Your task to perform on an android device: Search for the best gaming mouse on Best Buy. Image 0: 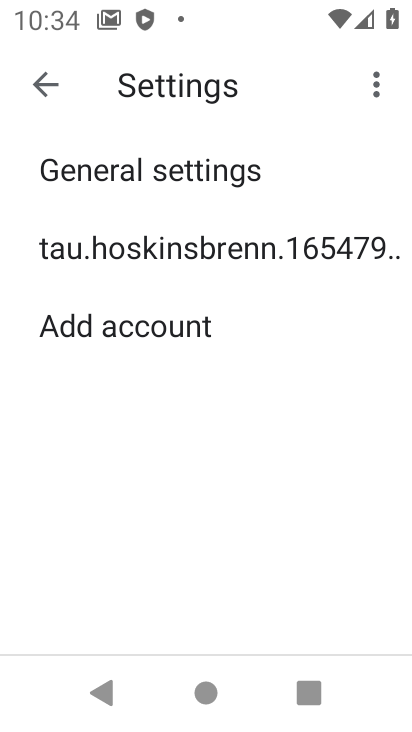
Step 0: press home button
Your task to perform on an android device: Search for the best gaming mouse on Best Buy. Image 1: 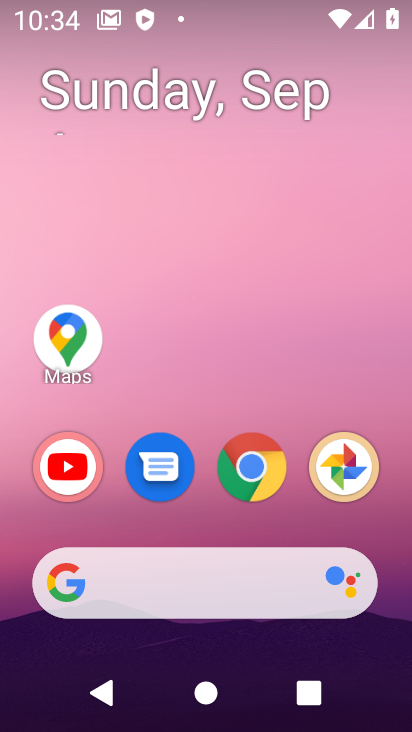
Step 1: click (241, 496)
Your task to perform on an android device: Search for the best gaming mouse on Best Buy. Image 2: 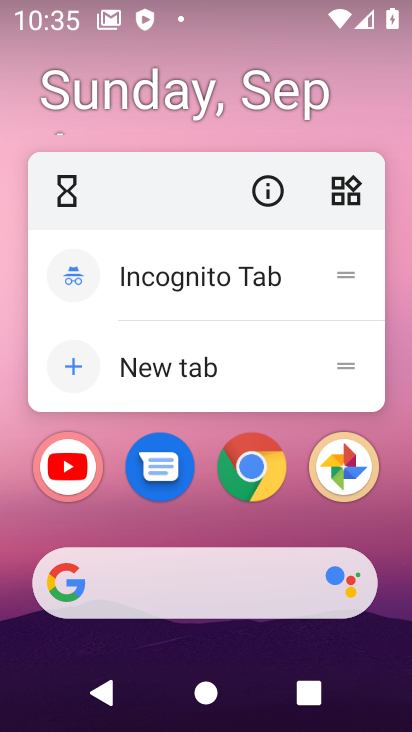
Step 2: click (257, 460)
Your task to perform on an android device: Search for the best gaming mouse on Best Buy. Image 3: 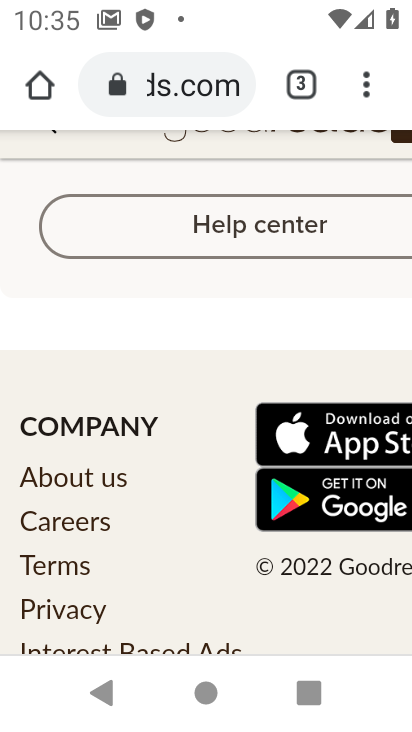
Step 3: click (185, 89)
Your task to perform on an android device: Search for the best gaming mouse on Best Buy. Image 4: 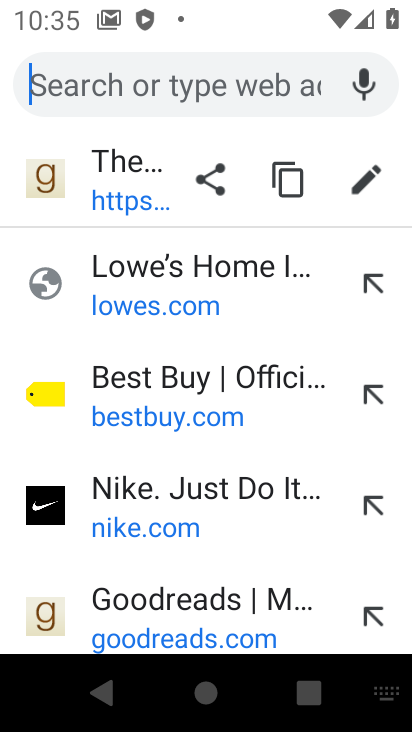
Step 4: type "best buy"
Your task to perform on an android device: Search for the best gaming mouse on Best Buy. Image 5: 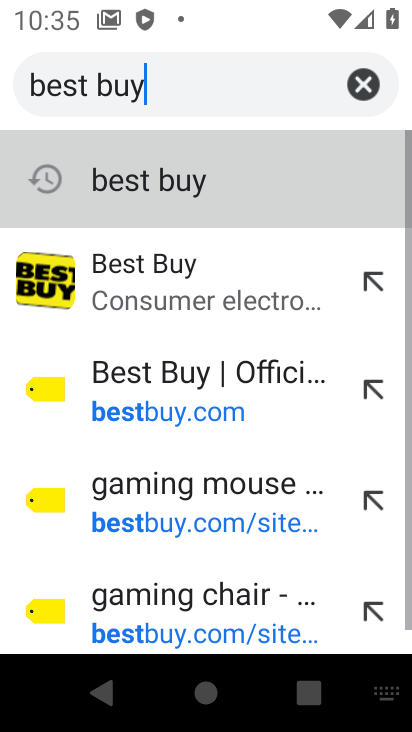
Step 5: type ""
Your task to perform on an android device: Search for the best gaming mouse on Best Buy. Image 6: 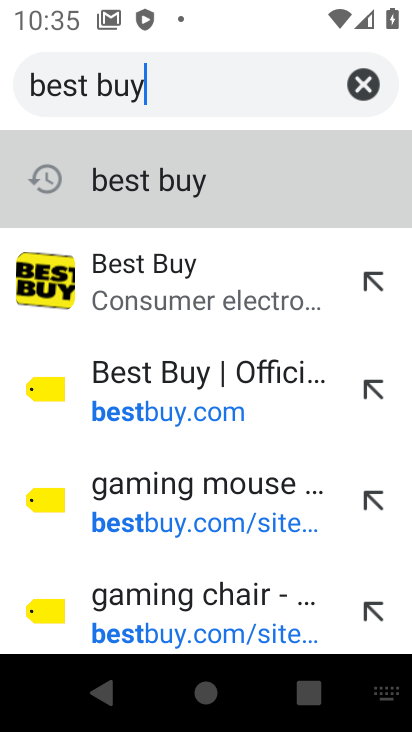
Step 6: click (188, 303)
Your task to perform on an android device: Search for the best gaming mouse on Best Buy. Image 7: 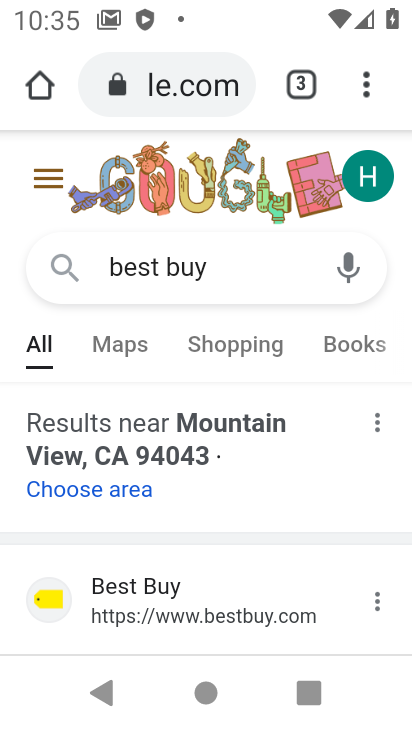
Step 7: drag from (408, 529) to (404, 212)
Your task to perform on an android device: Search for the best gaming mouse on Best Buy. Image 8: 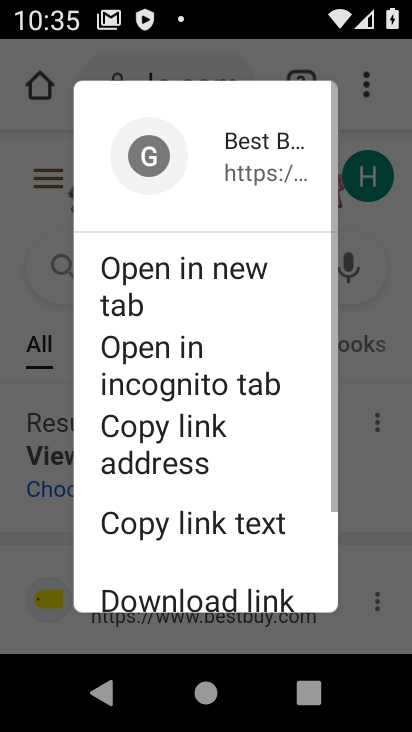
Step 8: click (399, 420)
Your task to perform on an android device: Search for the best gaming mouse on Best Buy. Image 9: 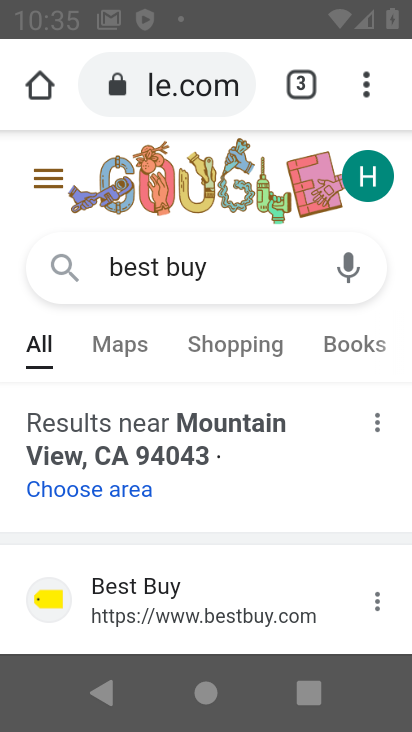
Step 9: drag from (401, 460) to (401, 163)
Your task to perform on an android device: Search for the best gaming mouse on Best Buy. Image 10: 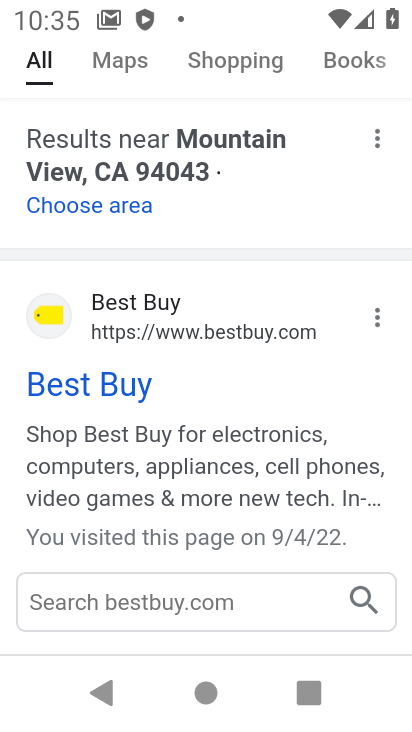
Step 10: drag from (141, 477) to (221, 434)
Your task to perform on an android device: Search for the best gaming mouse on Best Buy. Image 11: 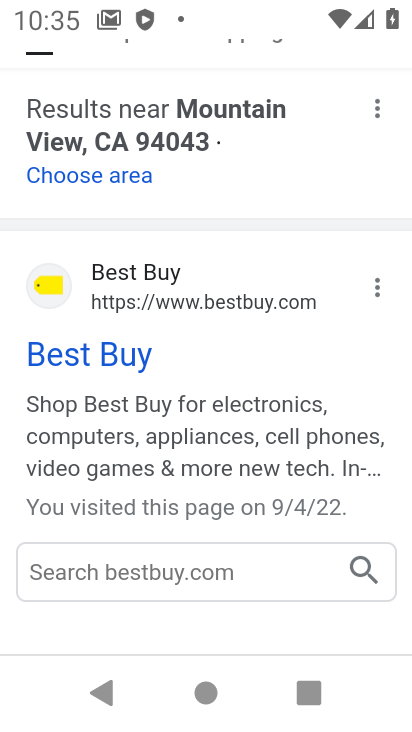
Step 11: click (74, 352)
Your task to perform on an android device: Search for the best gaming mouse on Best Buy. Image 12: 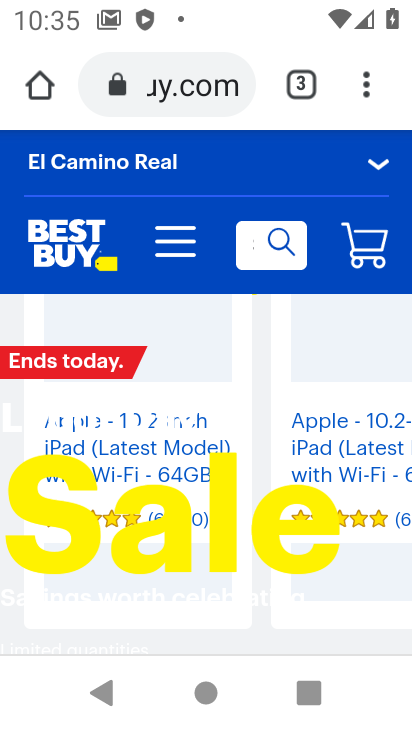
Step 12: click (279, 235)
Your task to perform on an android device: Search for the best gaming mouse on Best Buy. Image 13: 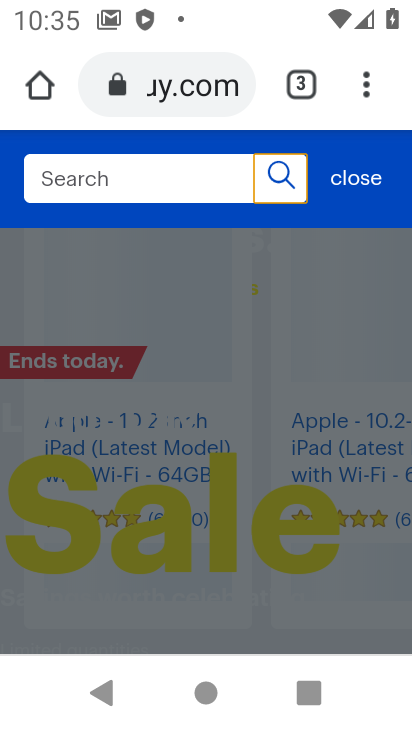
Step 13: click (126, 184)
Your task to perform on an android device: Search for the best gaming mouse on Best Buy. Image 14: 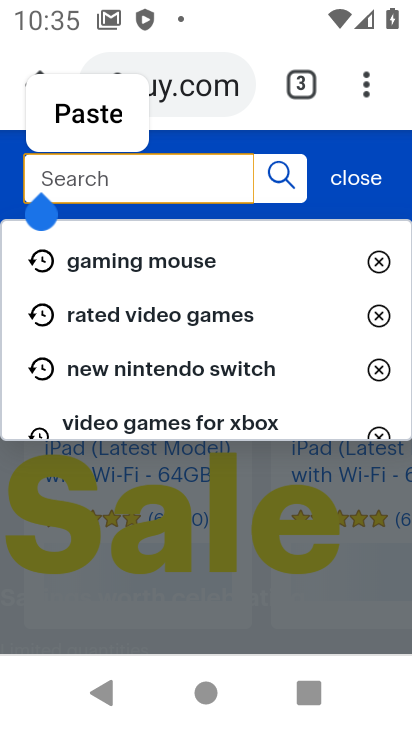
Step 14: click (112, 272)
Your task to perform on an android device: Search for the best gaming mouse on Best Buy. Image 15: 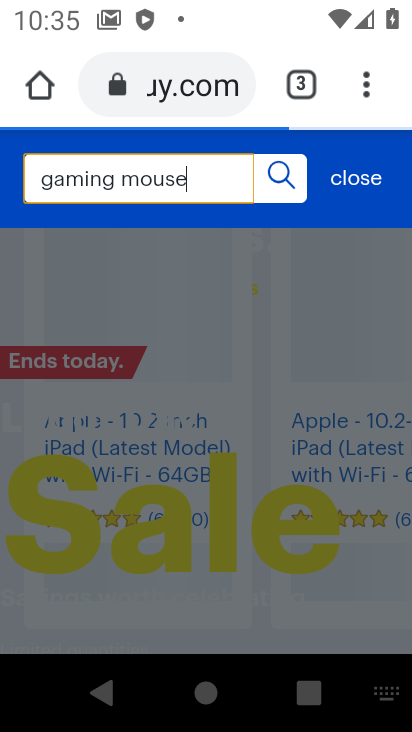
Step 15: click (292, 166)
Your task to perform on an android device: Search for the best gaming mouse on Best Buy. Image 16: 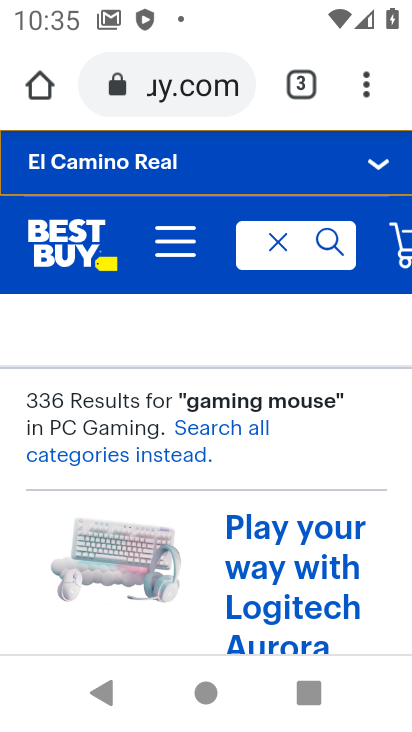
Step 16: drag from (388, 603) to (353, 291)
Your task to perform on an android device: Search for the best gaming mouse on Best Buy. Image 17: 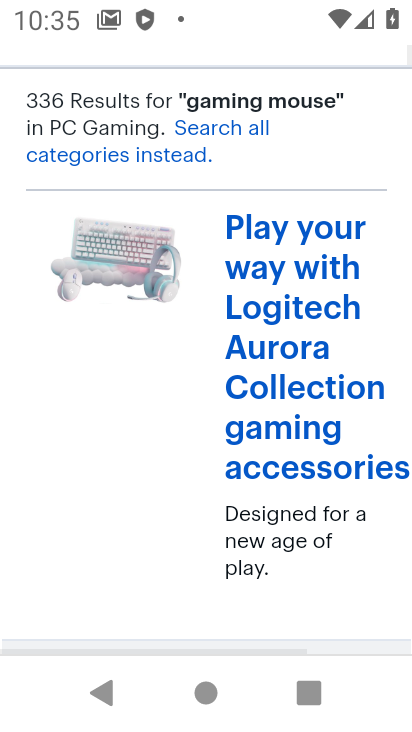
Step 17: drag from (299, 455) to (288, 195)
Your task to perform on an android device: Search for the best gaming mouse on Best Buy. Image 18: 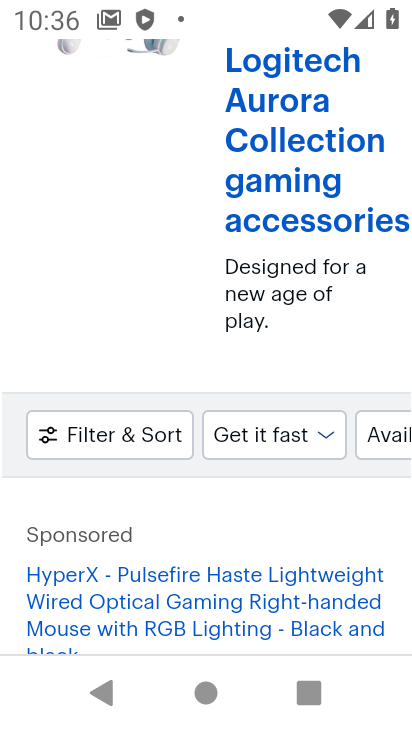
Step 18: click (98, 433)
Your task to perform on an android device: Search for the best gaming mouse on Best Buy. Image 19: 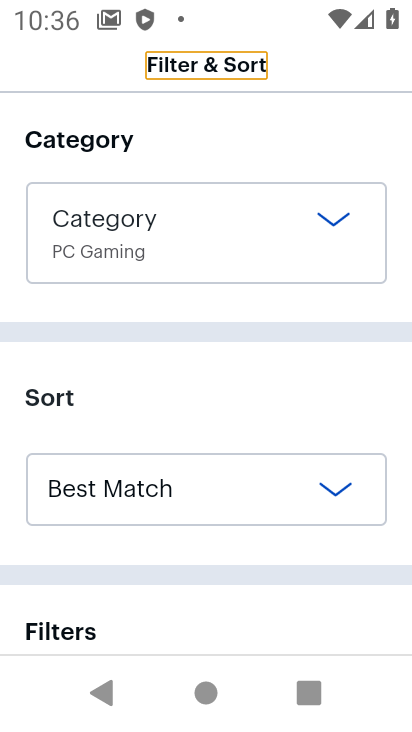
Step 19: click (329, 498)
Your task to perform on an android device: Search for the best gaming mouse on Best Buy. Image 20: 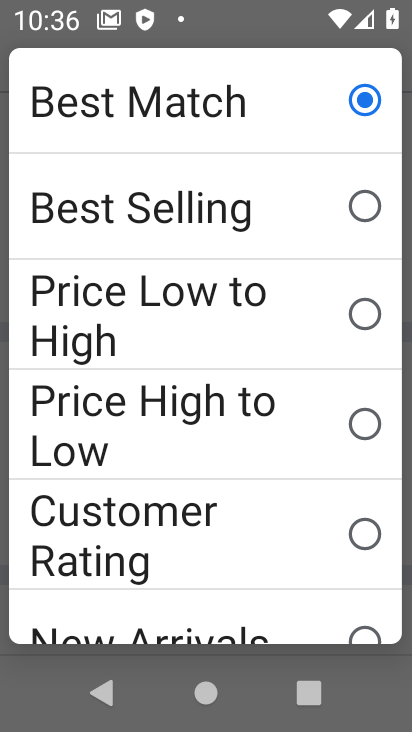
Step 20: click (366, 421)
Your task to perform on an android device: Search for the best gaming mouse on Best Buy. Image 21: 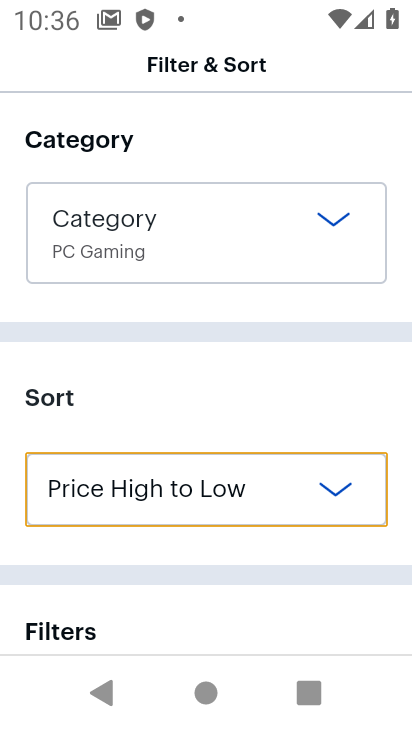
Step 21: drag from (373, 559) to (402, 204)
Your task to perform on an android device: Search for the best gaming mouse on Best Buy. Image 22: 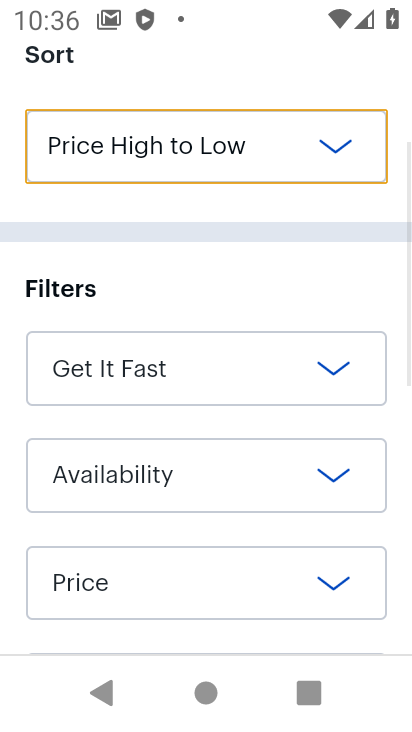
Step 22: drag from (350, 509) to (351, 149)
Your task to perform on an android device: Search for the best gaming mouse on Best Buy. Image 23: 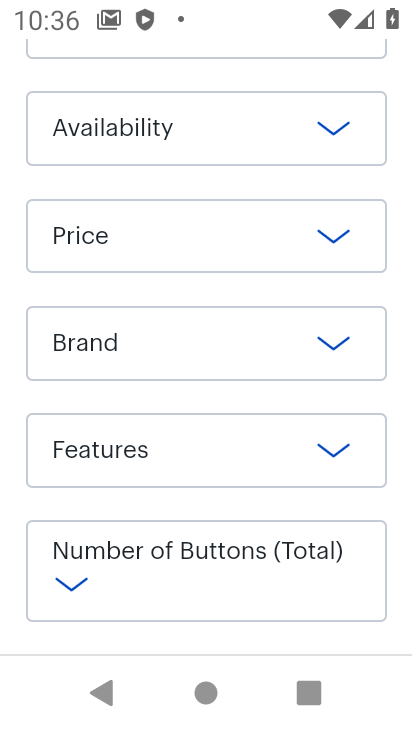
Step 23: drag from (273, 533) to (283, 165)
Your task to perform on an android device: Search for the best gaming mouse on Best Buy. Image 24: 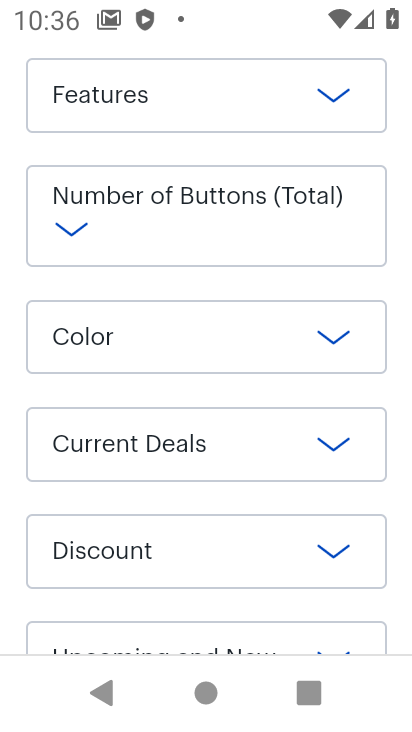
Step 24: drag from (287, 508) to (276, 85)
Your task to perform on an android device: Search for the best gaming mouse on Best Buy. Image 25: 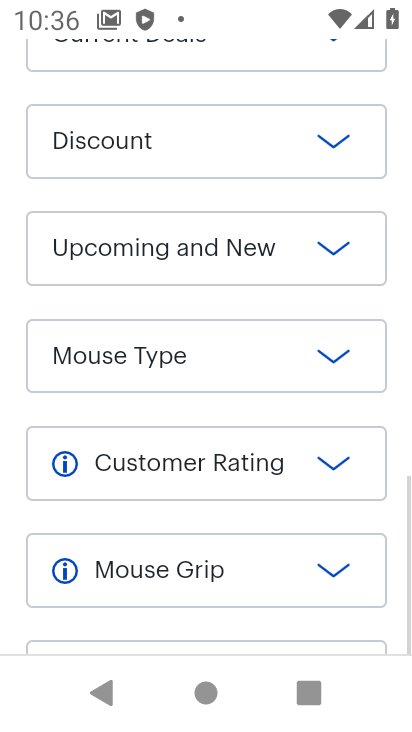
Step 25: drag from (246, 454) to (334, 110)
Your task to perform on an android device: Search for the best gaming mouse on Best Buy. Image 26: 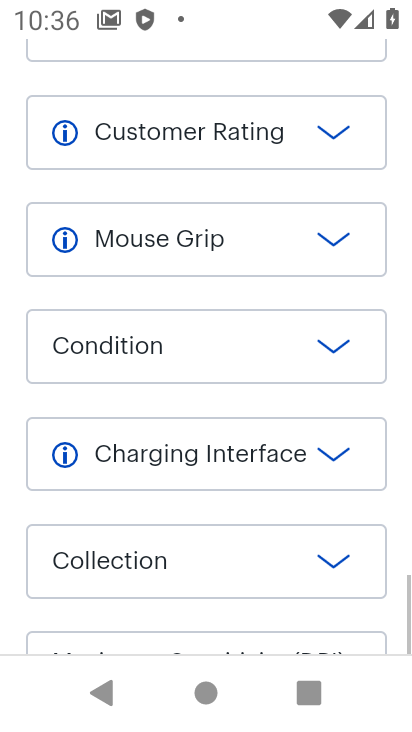
Step 26: drag from (321, 457) to (304, 112)
Your task to perform on an android device: Search for the best gaming mouse on Best Buy. Image 27: 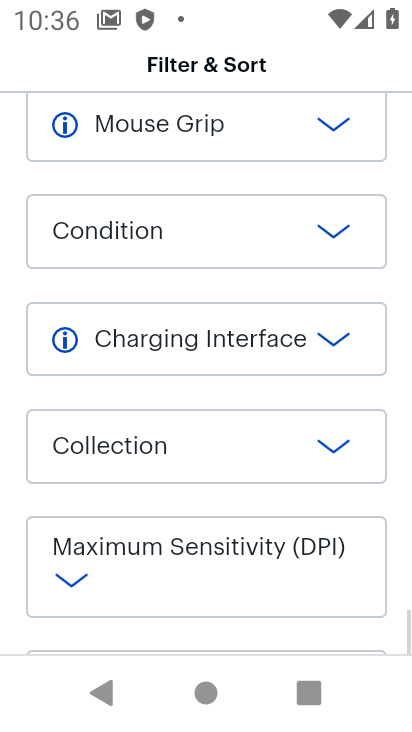
Step 27: drag from (407, 156) to (309, 666)
Your task to perform on an android device: Search for the best gaming mouse on Best Buy. Image 28: 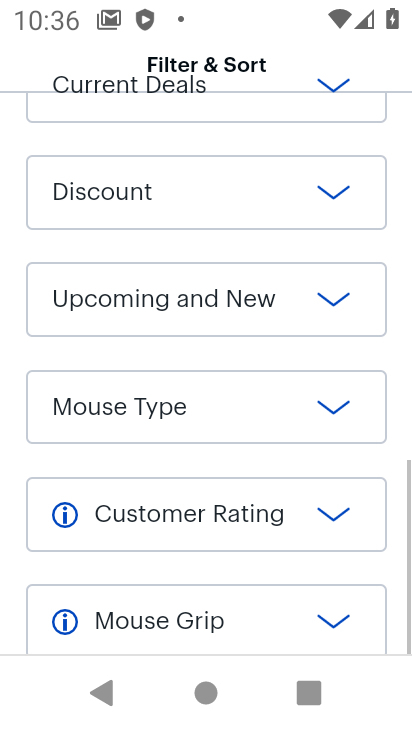
Step 28: drag from (319, 349) to (318, 597)
Your task to perform on an android device: Search for the best gaming mouse on Best Buy. Image 29: 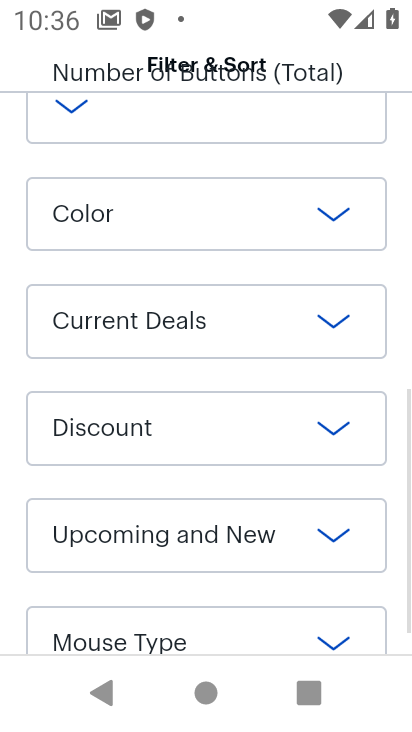
Step 29: drag from (284, 238) to (288, 615)
Your task to perform on an android device: Search for the best gaming mouse on Best Buy. Image 30: 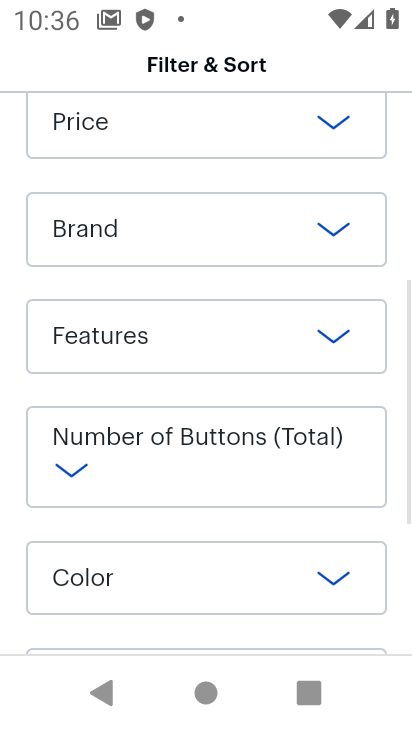
Step 30: drag from (281, 242) to (265, 711)
Your task to perform on an android device: Search for the best gaming mouse on Best Buy. Image 31: 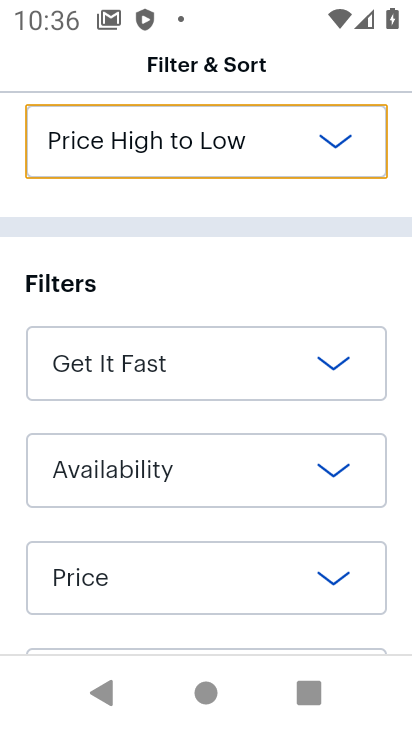
Step 31: drag from (388, 224) to (342, 593)
Your task to perform on an android device: Search for the best gaming mouse on Best Buy. Image 32: 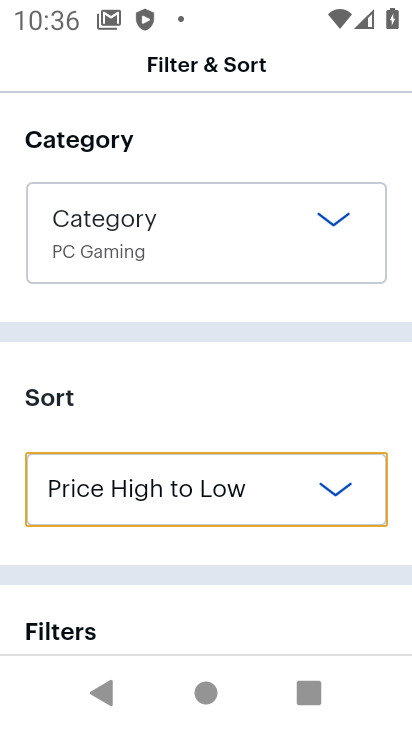
Step 32: drag from (349, 160) to (369, 653)
Your task to perform on an android device: Search for the best gaming mouse on Best Buy. Image 33: 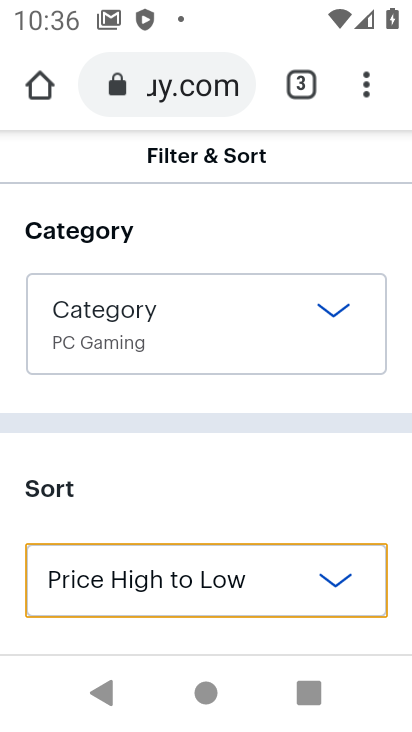
Step 33: drag from (353, 513) to (347, 79)
Your task to perform on an android device: Search for the best gaming mouse on Best Buy. Image 34: 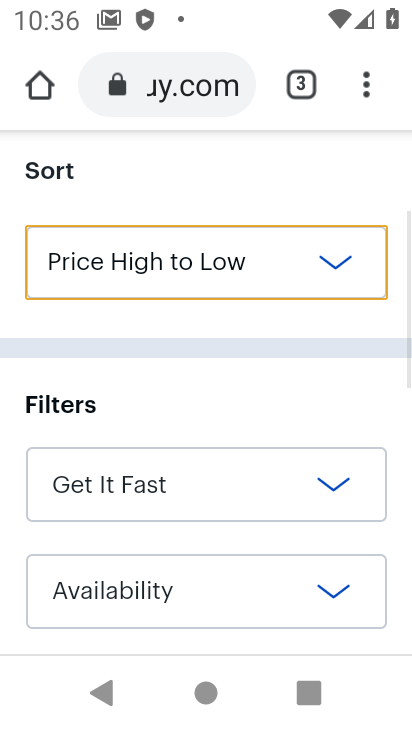
Step 34: click (407, 196)
Your task to perform on an android device: Search for the best gaming mouse on Best Buy. Image 35: 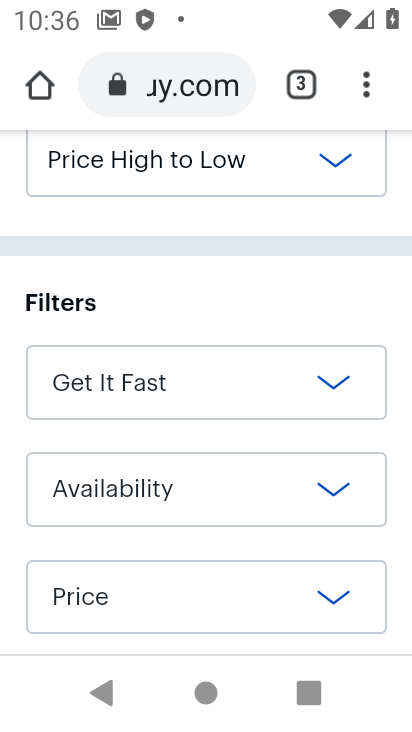
Step 35: press enter
Your task to perform on an android device: Search for the best gaming mouse on Best Buy. Image 36: 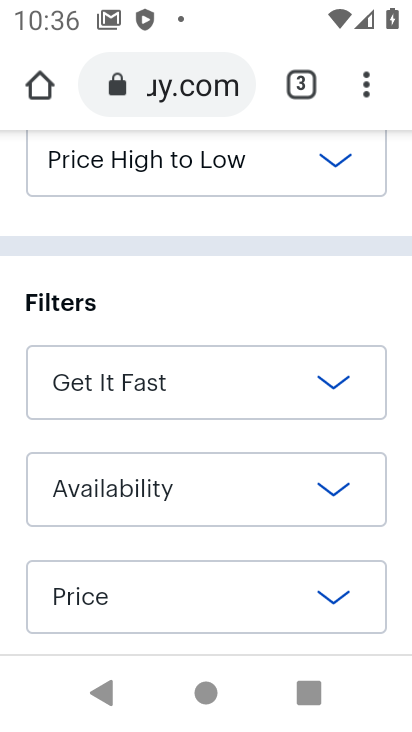
Step 36: click (407, 196)
Your task to perform on an android device: Search for the best gaming mouse on Best Buy. Image 37: 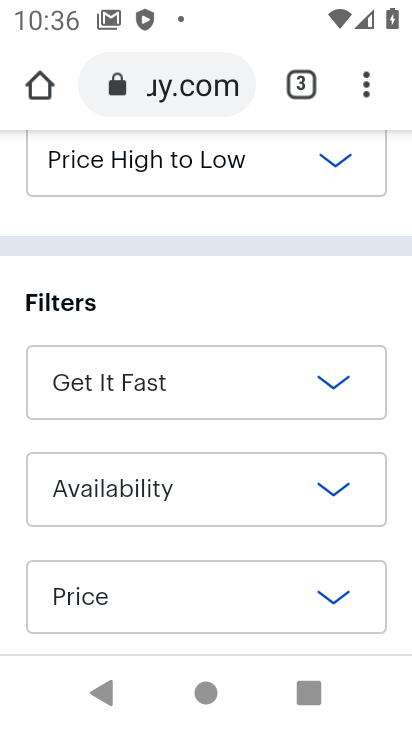
Step 37: press enter
Your task to perform on an android device: Search for the best gaming mouse on Best Buy. Image 38: 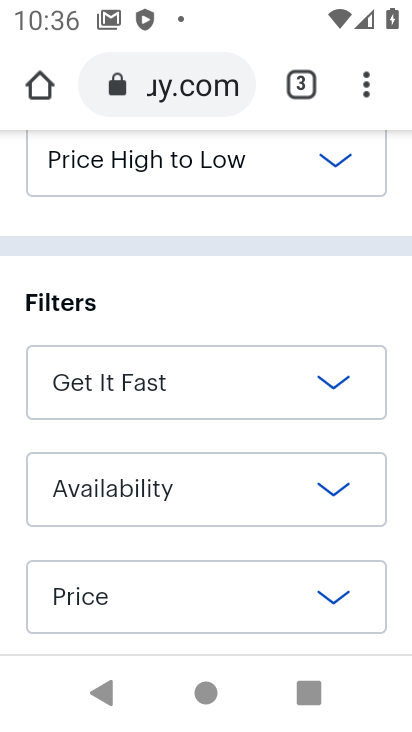
Step 38: drag from (407, 196) to (410, 565)
Your task to perform on an android device: Search for the best gaming mouse on Best Buy. Image 39: 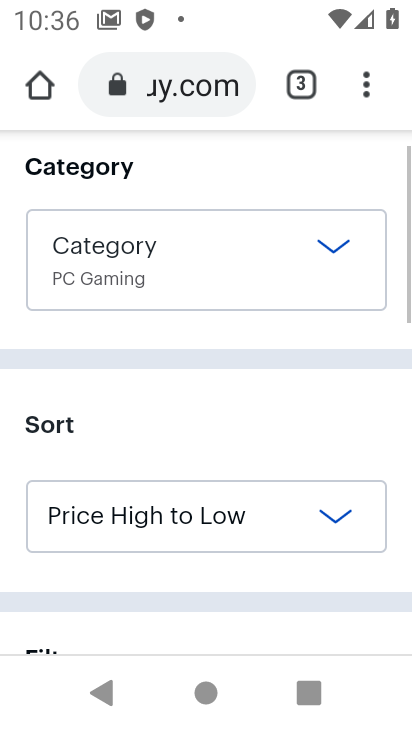
Step 39: drag from (406, 565) to (392, 233)
Your task to perform on an android device: Search for the best gaming mouse on Best Buy. Image 40: 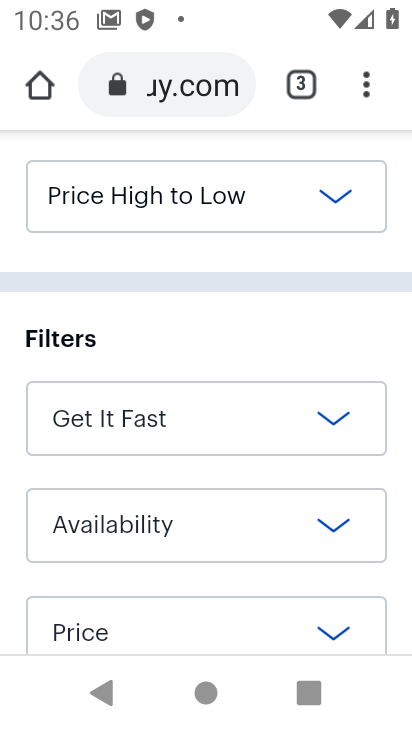
Step 40: drag from (406, 455) to (342, 185)
Your task to perform on an android device: Search for the best gaming mouse on Best Buy. Image 41: 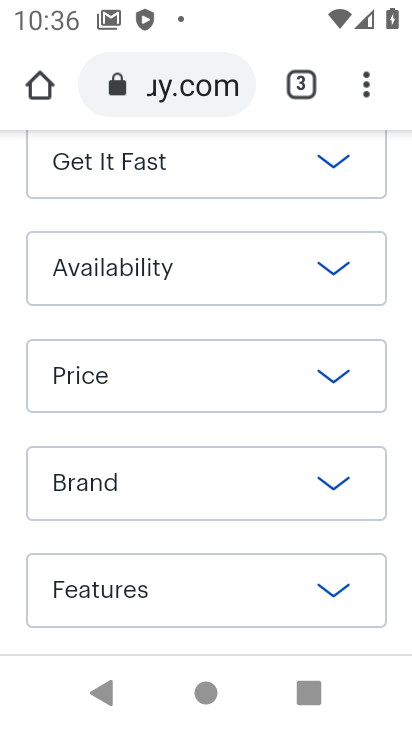
Step 41: drag from (388, 618) to (379, 191)
Your task to perform on an android device: Search for the best gaming mouse on Best Buy. Image 42: 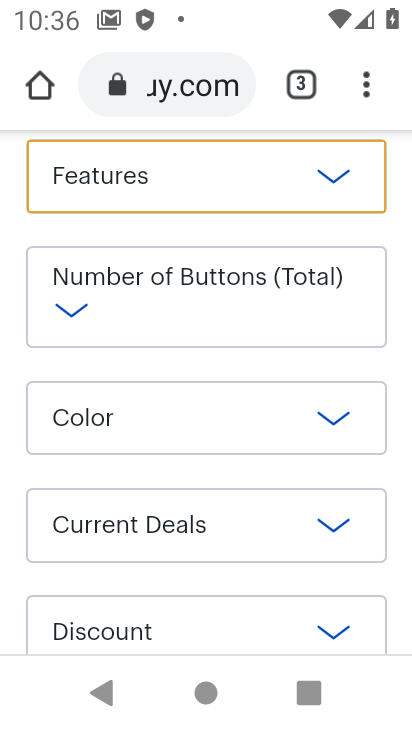
Step 42: drag from (411, 591) to (369, 138)
Your task to perform on an android device: Search for the best gaming mouse on Best Buy. Image 43: 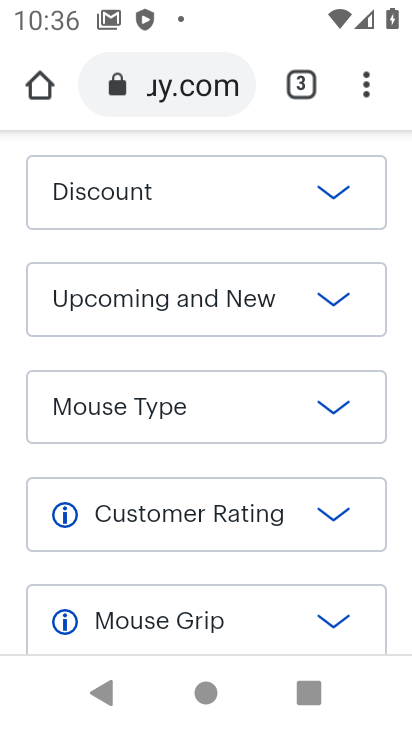
Step 43: drag from (389, 624) to (387, 336)
Your task to perform on an android device: Search for the best gaming mouse on Best Buy. Image 44: 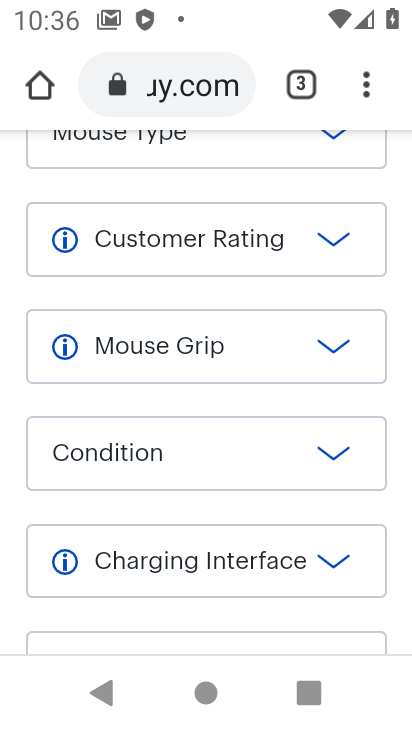
Step 44: drag from (405, 639) to (404, 297)
Your task to perform on an android device: Search for the best gaming mouse on Best Buy. Image 45: 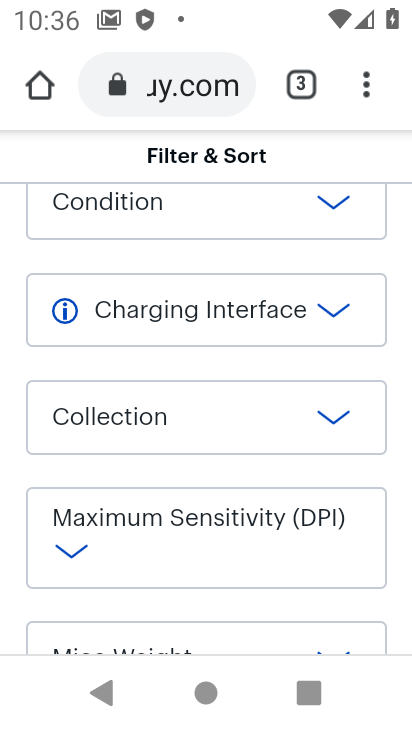
Step 45: drag from (406, 642) to (396, 359)
Your task to perform on an android device: Search for the best gaming mouse on Best Buy. Image 46: 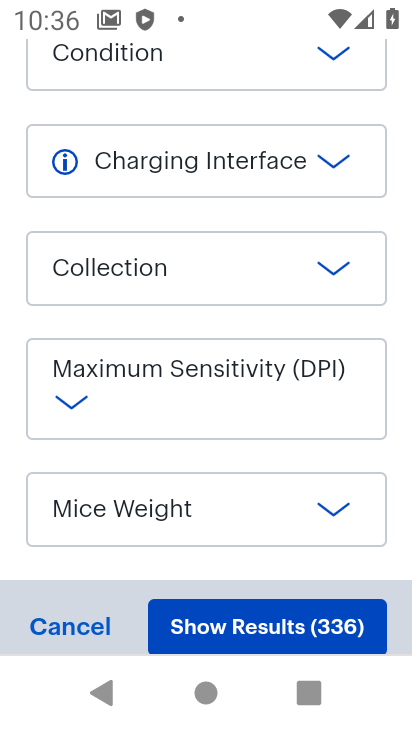
Step 46: click (233, 621)
Your task to perform on an android device: Search for the best gaming mouse on Best Buy. Image 47: 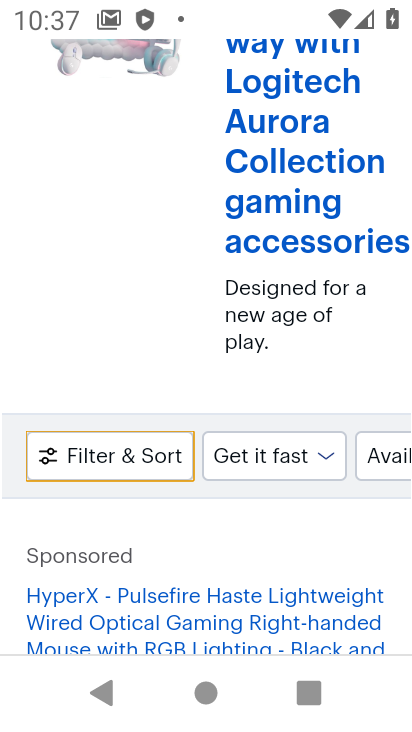
Step 47: drag from (98, 179) to (156, 122)
Your task to perform on an android device: Search for the best gaming mouse on Best Buy. Image 48: 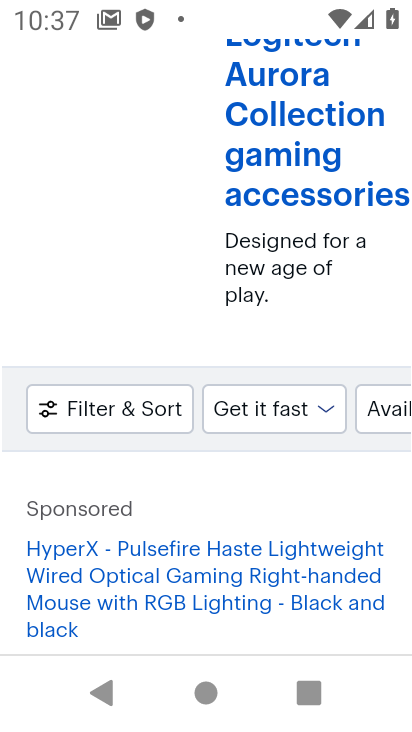
Step 48: drag from (135, 600) to (252, 128)
Your task to perform on an android device: Search for the best gaming mouse on Best Buy. Image 49: 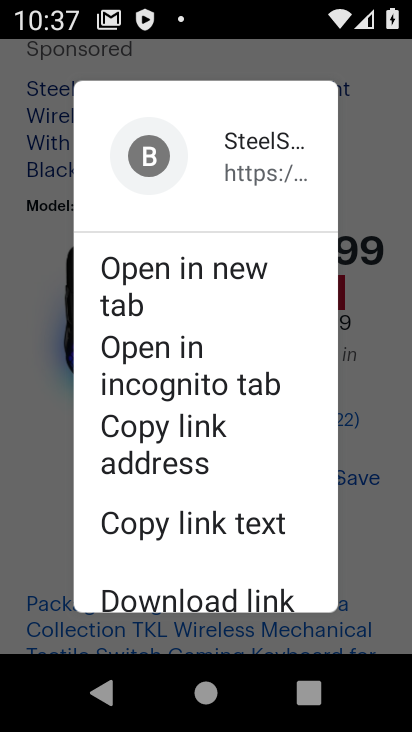
Step 49: drag from (378, 527) to (393, 186)
Your task to perform on an android device: Search for the best gaming mouse on Best Buy. Image 50: 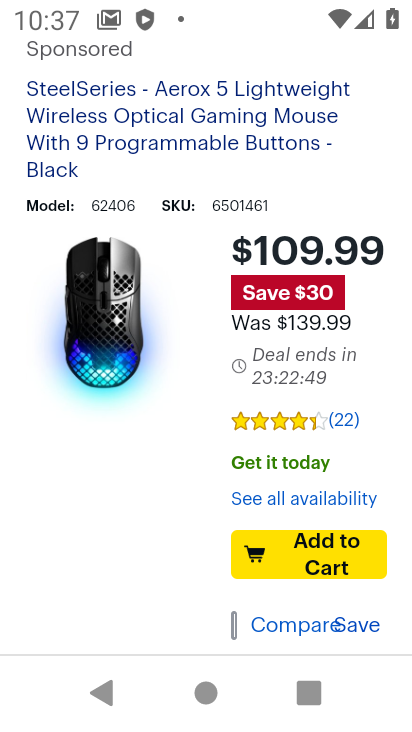
Step 50: drag from (301, 432) to (346, 110)
Your task to perform on an android device: Search for the best gaming mouse on Best Buy. Image 51: 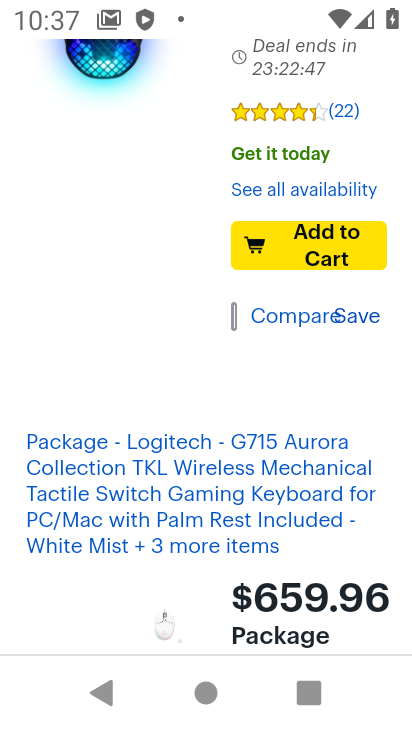
Step 51: drag from (338, 564) to (314, 132)
Your task to perform on an android device: Search for the best gaming mouse on Best Buy. Image 52: 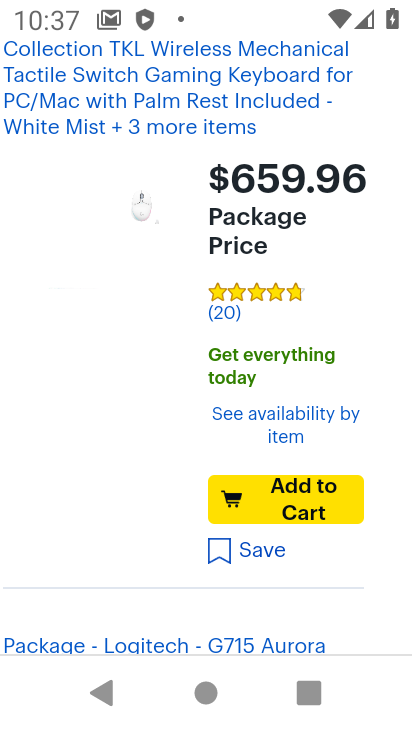
Step 52: drag from (331, 580) to (264, 116)
Your task to perform on an android device: Search for the best gaming mouse on Best Buy. Image 53: 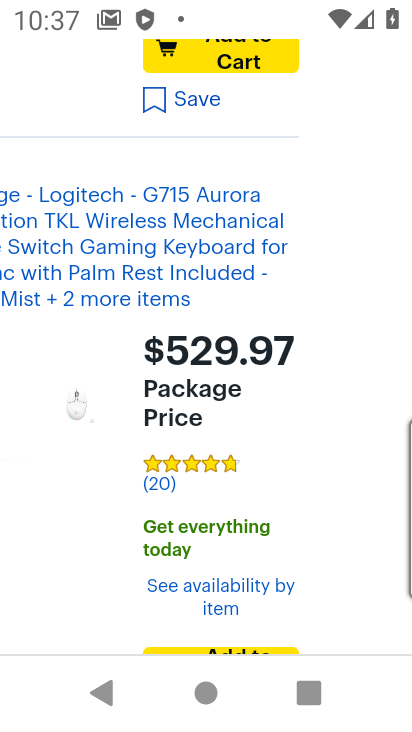
Step 53: drag from (278, 561) to (320, 176)
Your task to perform on an android device: Search for the best gaming mouse on Best Buy. Image 54: 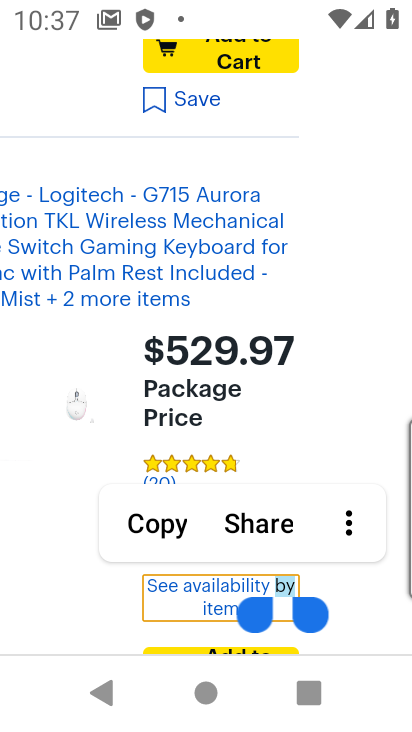
Step 54: drag from (297, 595) to (348, 278)
Your task to perform on an android device: Search for the best gaming mouse on Best Buy. Image 55: 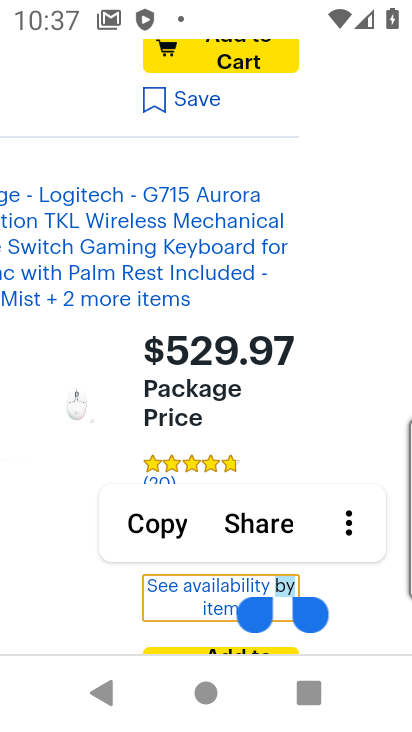
Step 55: drag from (343, 598) to (373, 182)
Your task to perform on an android device: Search for the best gaming mouse on Best Buy. Image 56: 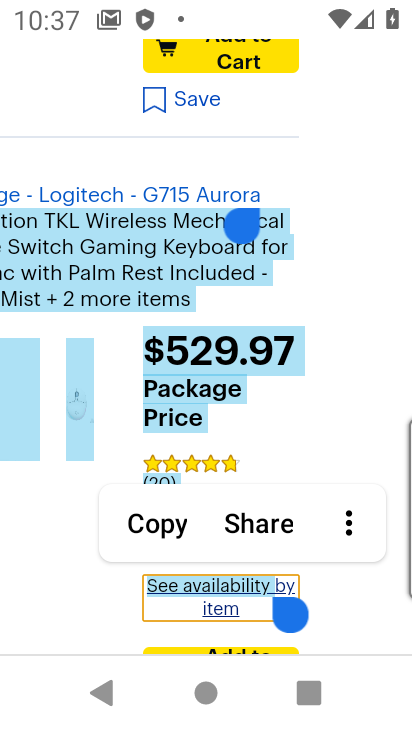
Step 56: drag from (380, 610) to (405, 207)
Your task to perform on an android device: Search for the best gaming mouse on Best Buy. Image 57: 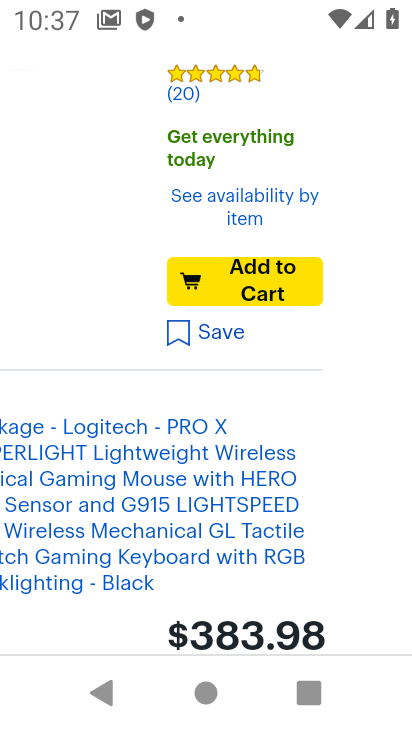
Step 57: drag from (355, 540) to (355, 158)
Your task to perform on an android device: Search for the best gaming mouse on Best Buy. Image 58: 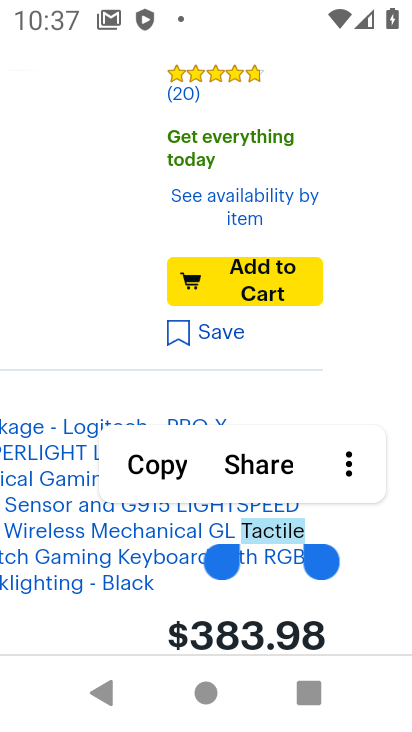
Step 58: drag from (357, 647) to (353, 286)
Your task to perform on an android device: Search for the best gaming mouse on Best Buy. Image 59: 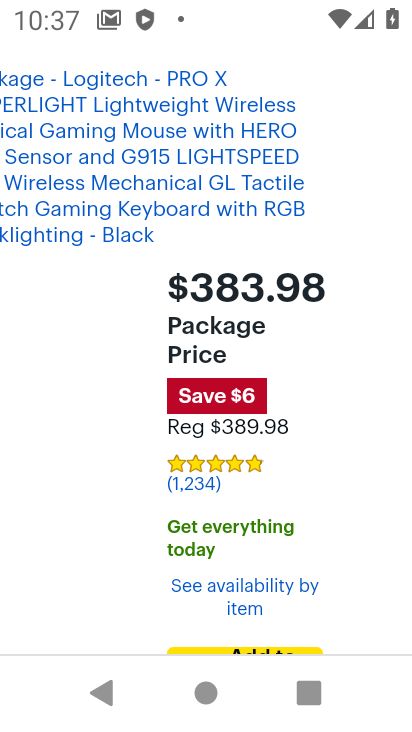
Step 59: drag from (344, 345) to (351, 256)
Your task to perform on an android device: Search for the best gaming mouse on Best Buy. Image 60: 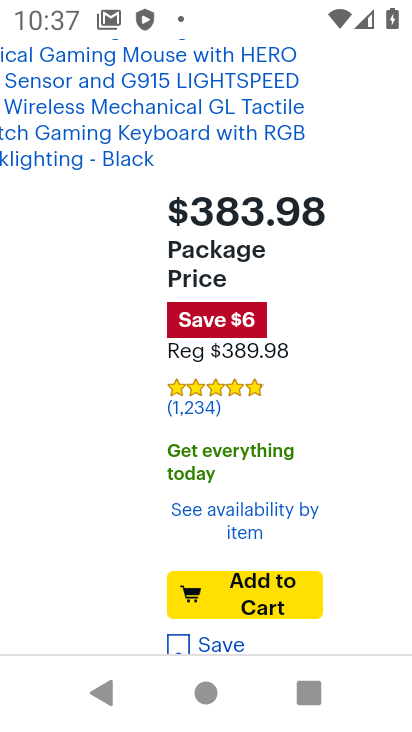
Step 60: drag from (382, 542) to (370, 120)
Your task to perform on an android device: Search for the best gaming mouse on Best Buy. Image 61: 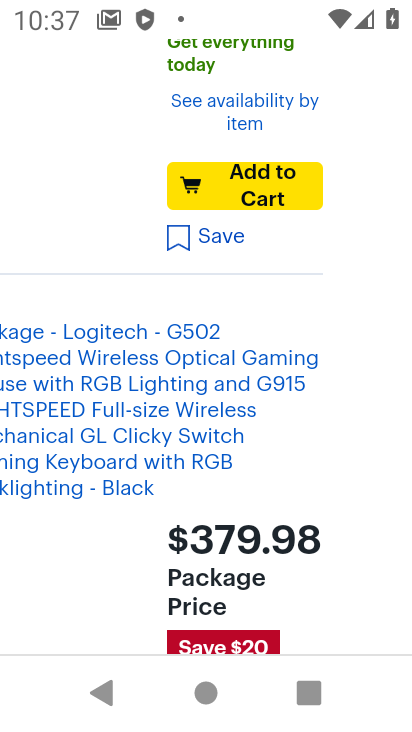
Step 61: drag from (299, 558) to (382, 205)
Your task to perform on an android device: Search for the best gaming mouse on Best Buy. Image 62: 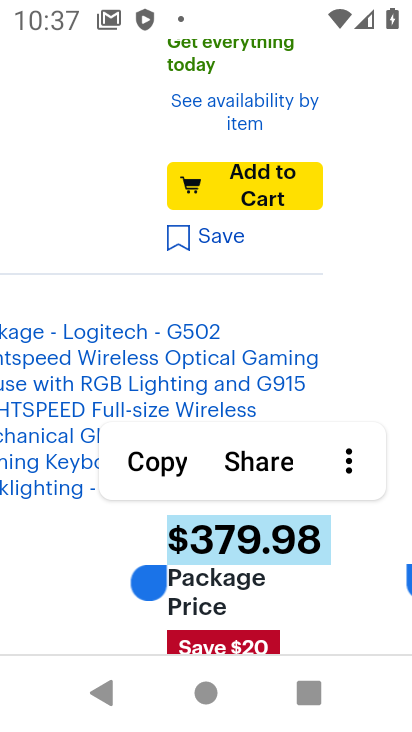
Step 62: drag from (398, 588) to (404, 271)
Your task to perform on an android device: Search for the best gaming mouse on Best Buy. Image 63: 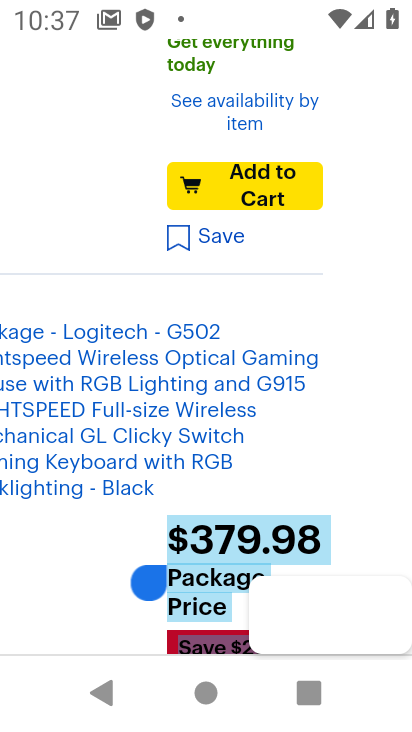
Step 63: click (371, 434)
Your task to perform on an android device: Search for the best gaming mouse on Best Buy. Image 64: 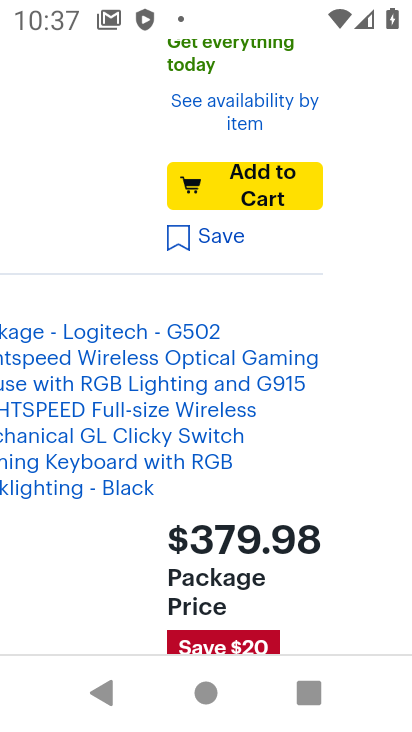
Step 64: task complete